Your task to perform on an android device: turn off javascript in the chrome app Image 0: 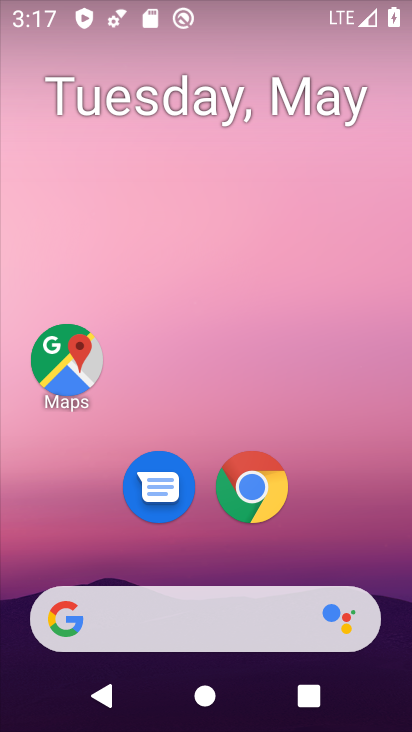
Step 0: click (254, 479)
Your task to perform on an android device: turn off javascript in the chrome app Image 1: 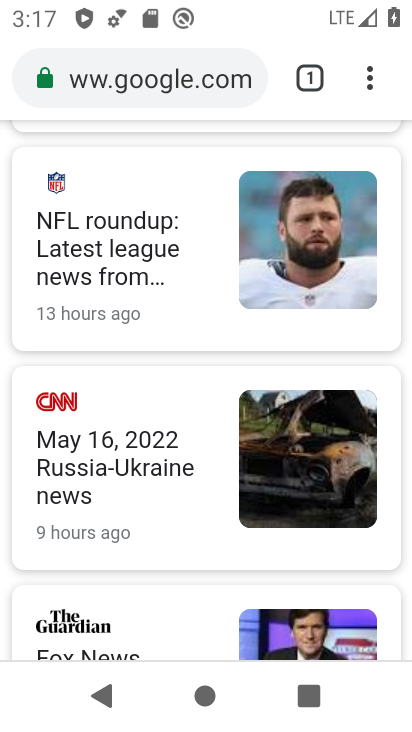
Step 1: drag from (372, 76) to (288, 546)
Your task to perform on an android device: turn off javascript in the chrome app Image 2: 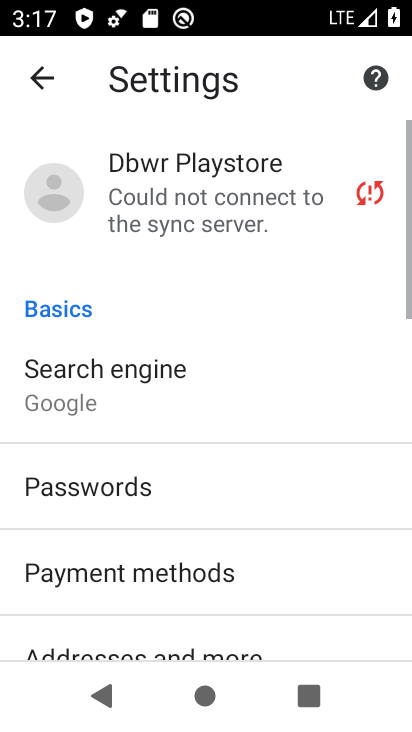
Step 2: drag from (197, 553) to (251, 65)
Your task to perform on an android device: turn off javascript in the chrome app Image 3: 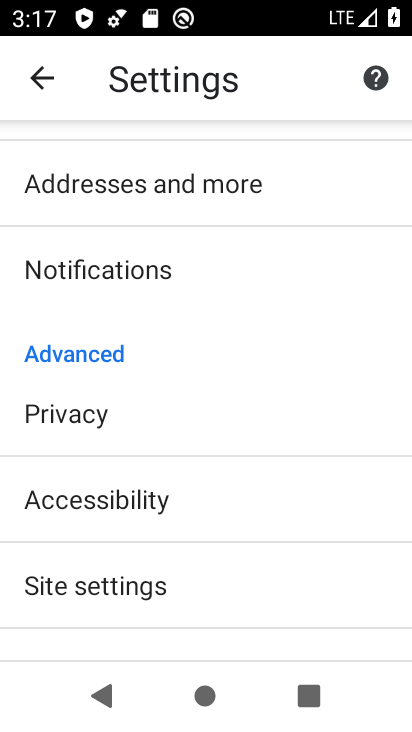
Step 3: drag from (235, 543) to (287, 341)
Your task to perform on an android device: turn off javascript in the chrome app Image 4: 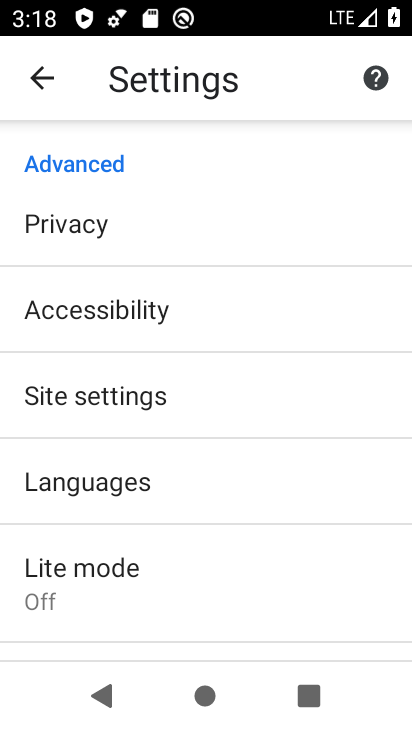
Step 4: click (124, 391)
Your task to perform on an android device: turn off javascript in the chrome app Image 5: 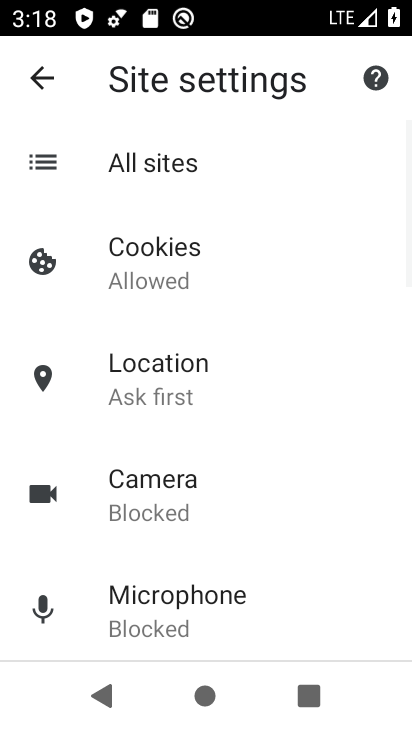
Step 5: drag from (222, 580) to (249, 168)
Your task to perform on an android device: turn off javascript in the chrome app Image 6: 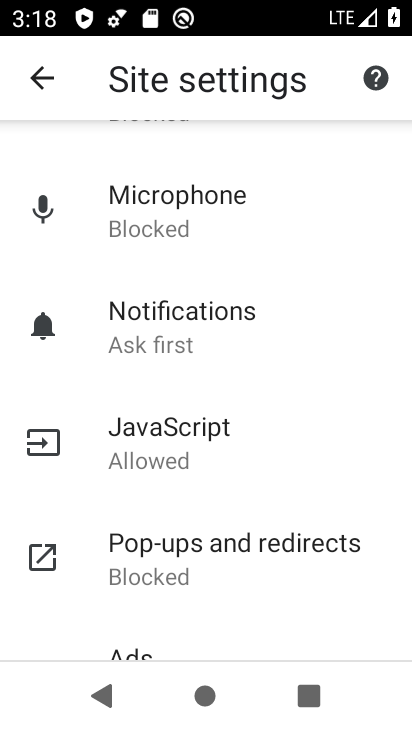
Step 6: click (186, 446)
Your task to perform on an android device: turn off javascript in the chrome app Image 7: 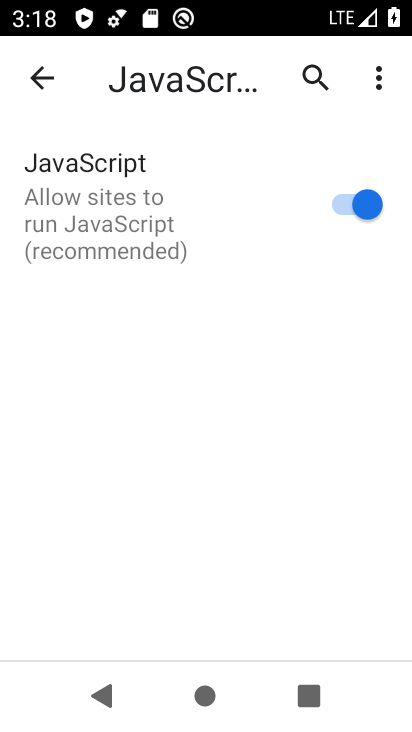
Step 7: click (347, 206)
Your task to perform on an android device: turn off javascript in the chrome app Image 8: 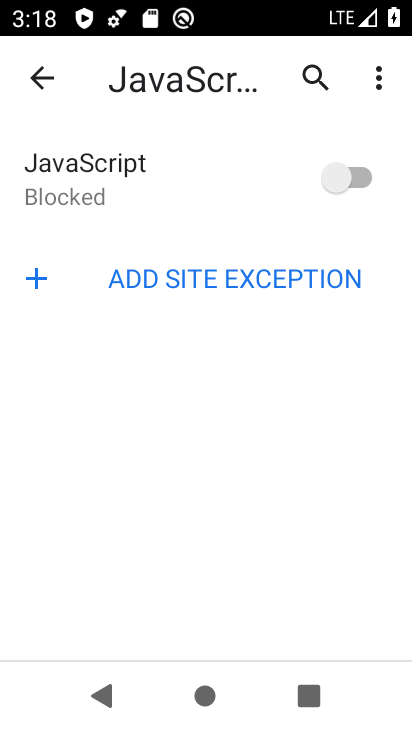
Step 8: task complete